Your task to perform on an android device: Search for logitech g903 on bestbuy, select the first entry, and add it to the cart. Image 0: 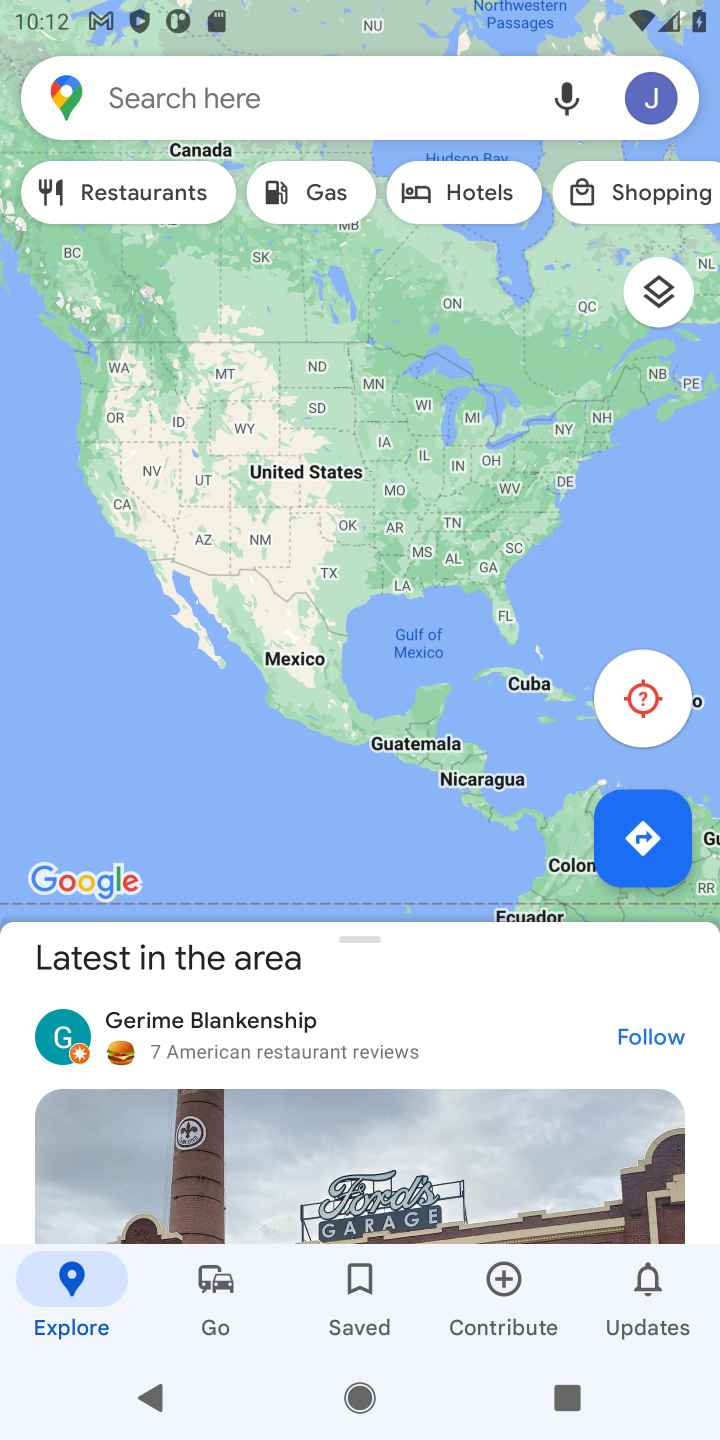
Step 0: press home button
Your task to perform on an android device: Search for logitech g903 on bestbuy, select the first entry, and add it to the cart. Image 1: 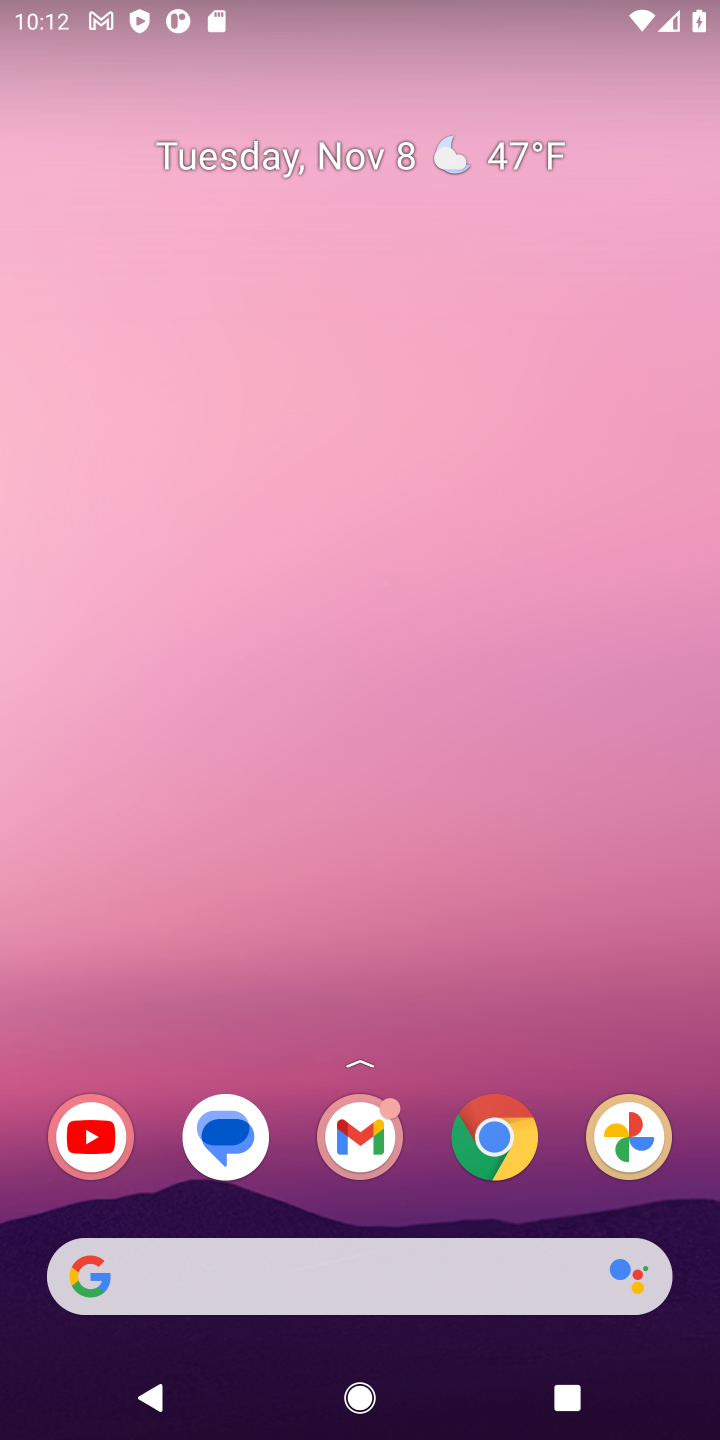
Step 1: click (494, 1140)
Your task to perform on an android device: Search for logitech g903 on bestbuy, select the first entry, and add it to the cart. Image 2: 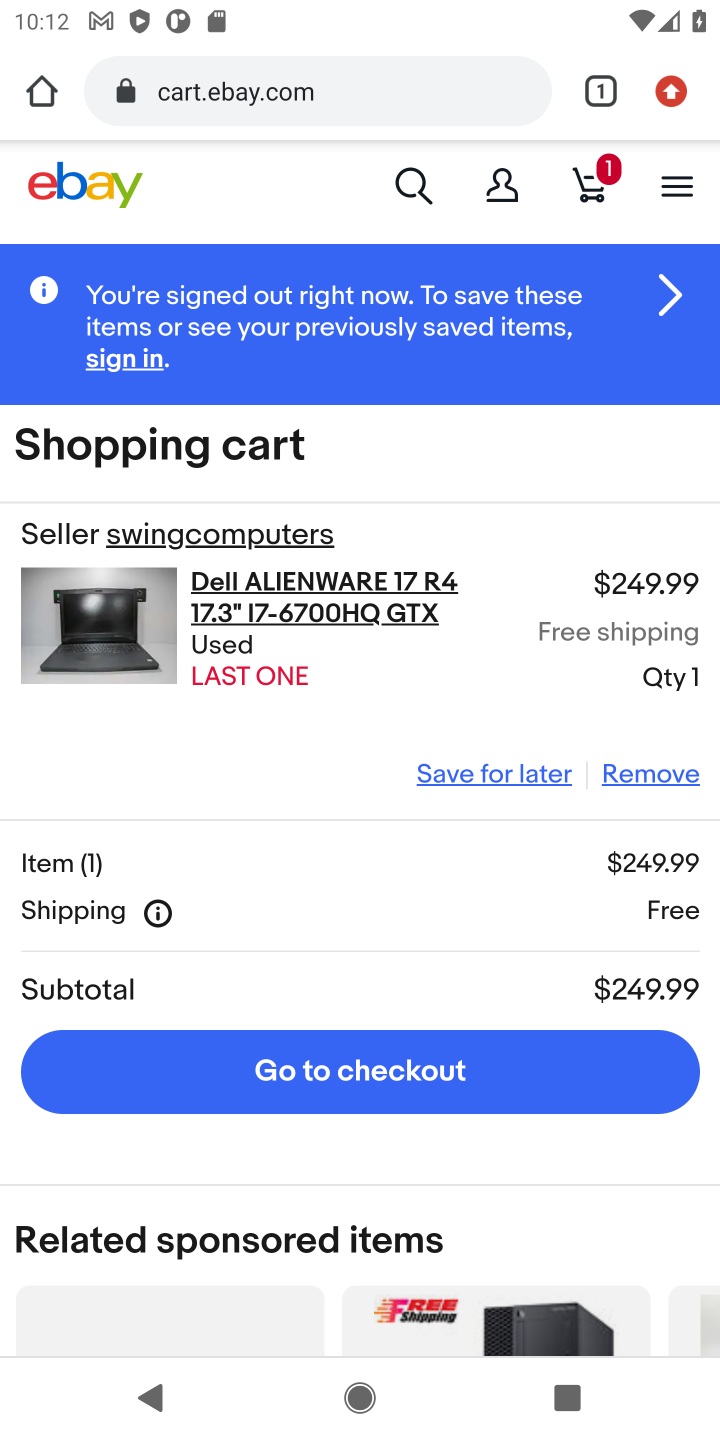
Step 2: click (457, 107)
Your task to perform on an android device: Search for logitech g903 on bestbuy, select the first entry, and add it to the cart. Image 3: 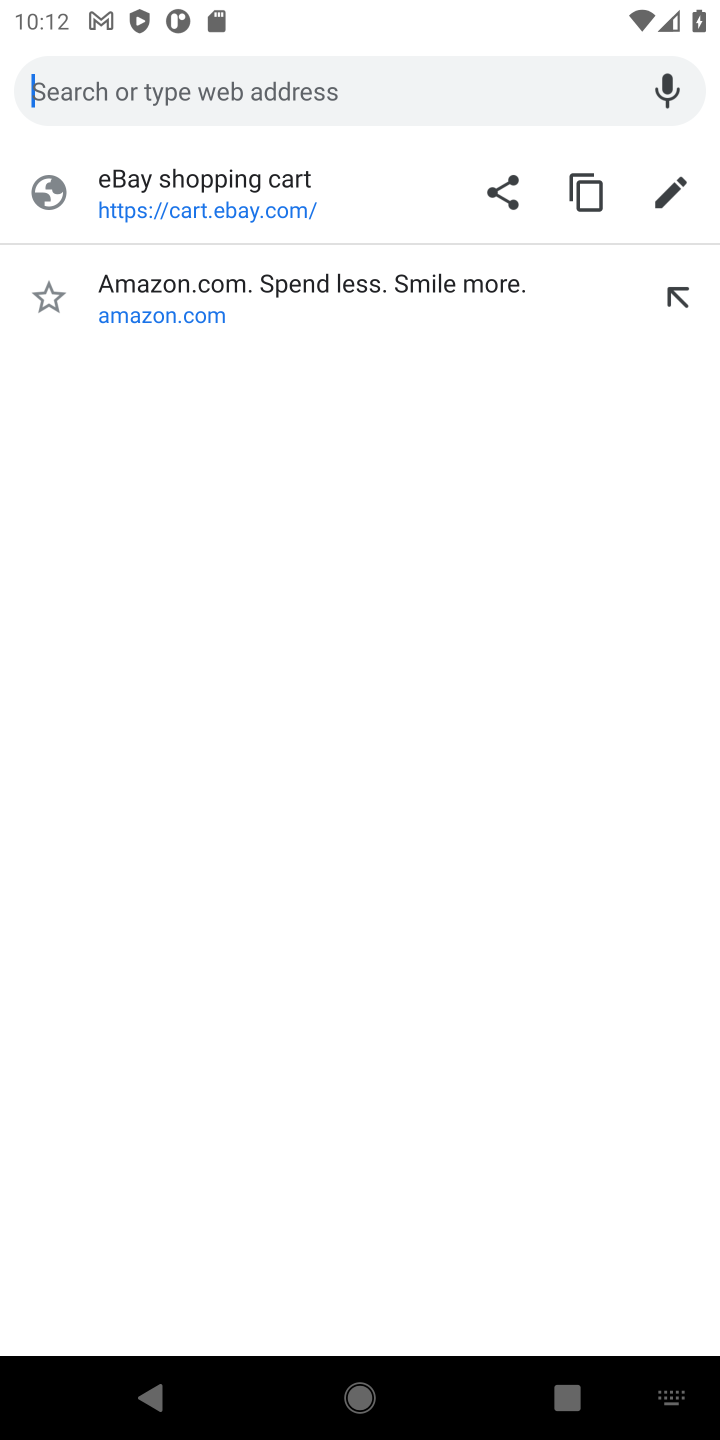
Step 3: type "bestbuy"
Your task to perform on an android device: Search for logitech g903 on bestbuy, select the first entry, and add it to the cart. Image 4: 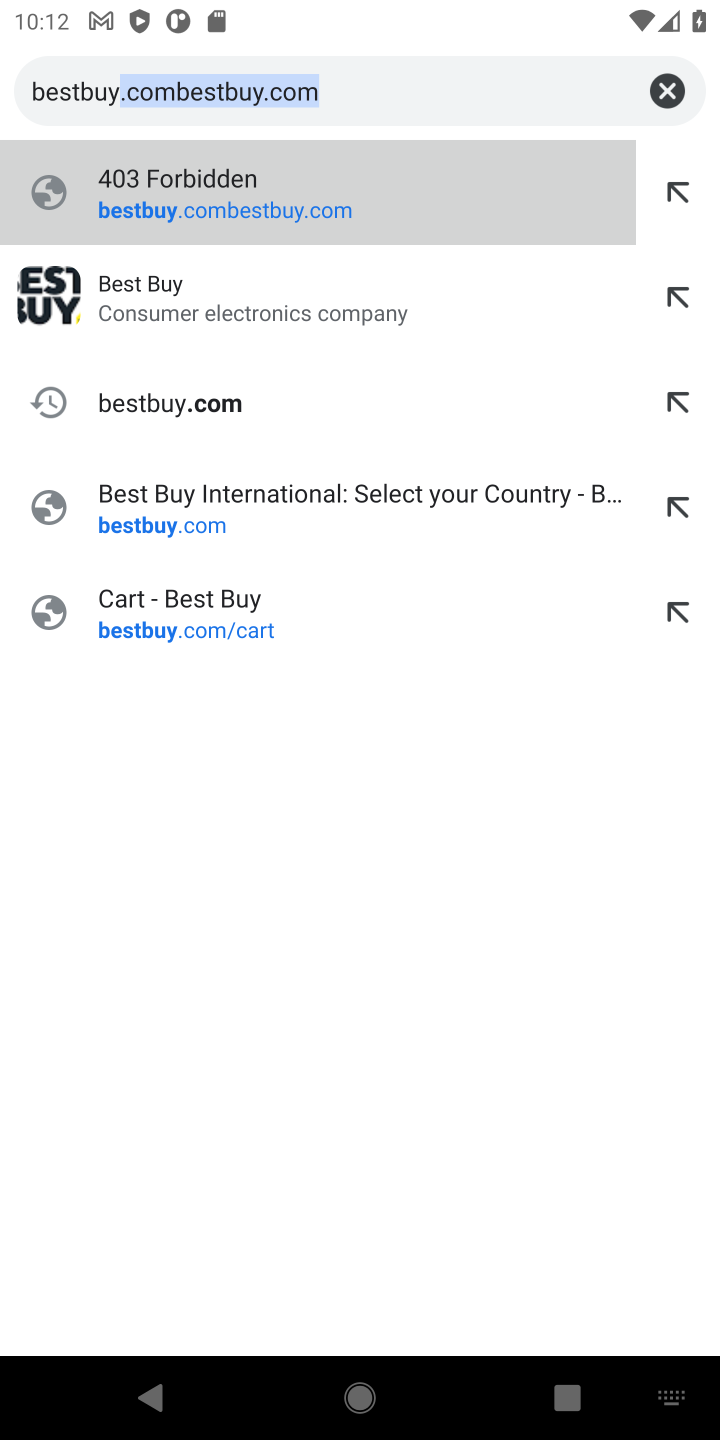
Step 4: click (220, 322)
Your task to perform on an android device: Search for logitech g903 on bestbuy, select the first entry, and add it to the cart. Image 5: 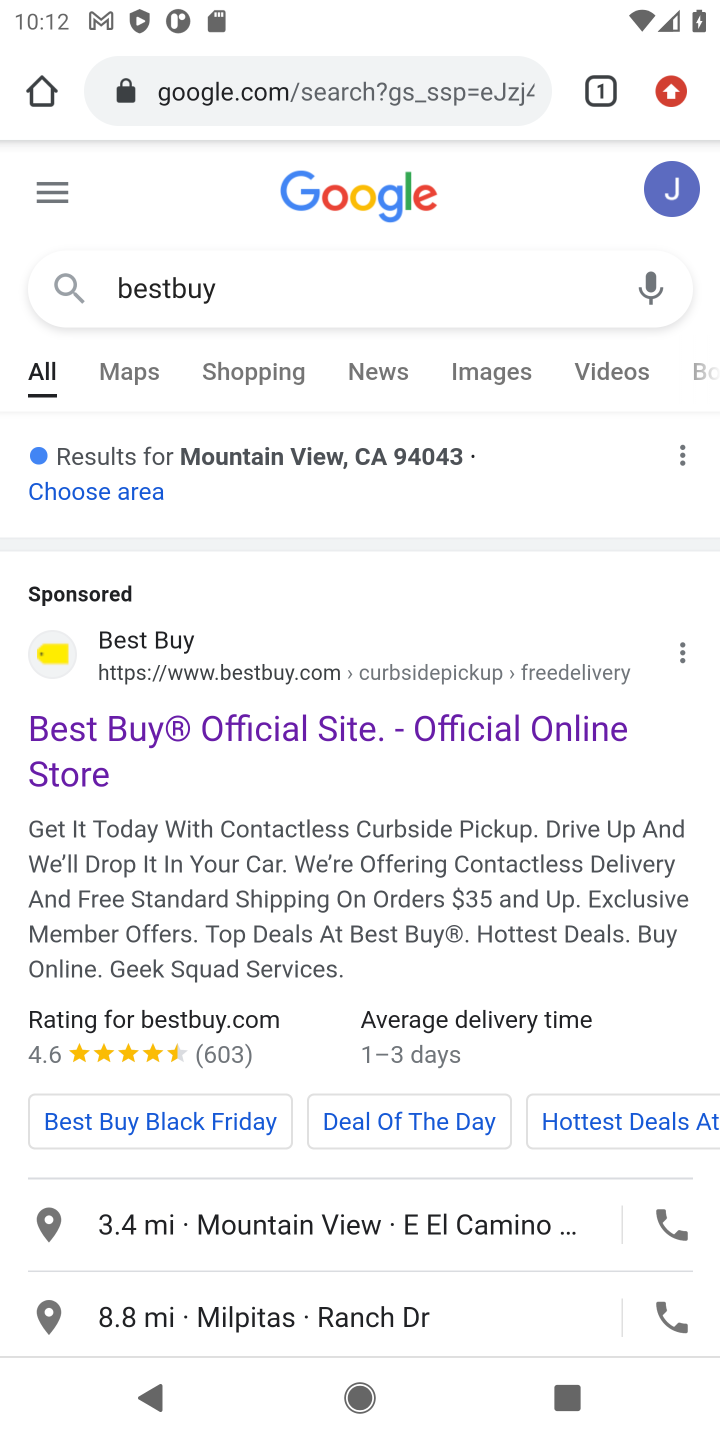
Step 5: drag from (308, 939) to (382, 402)
Your task to perform on an android device: Search for logitech g903 on bestbuy, select the first entry, and add it to the cart. Image 6: 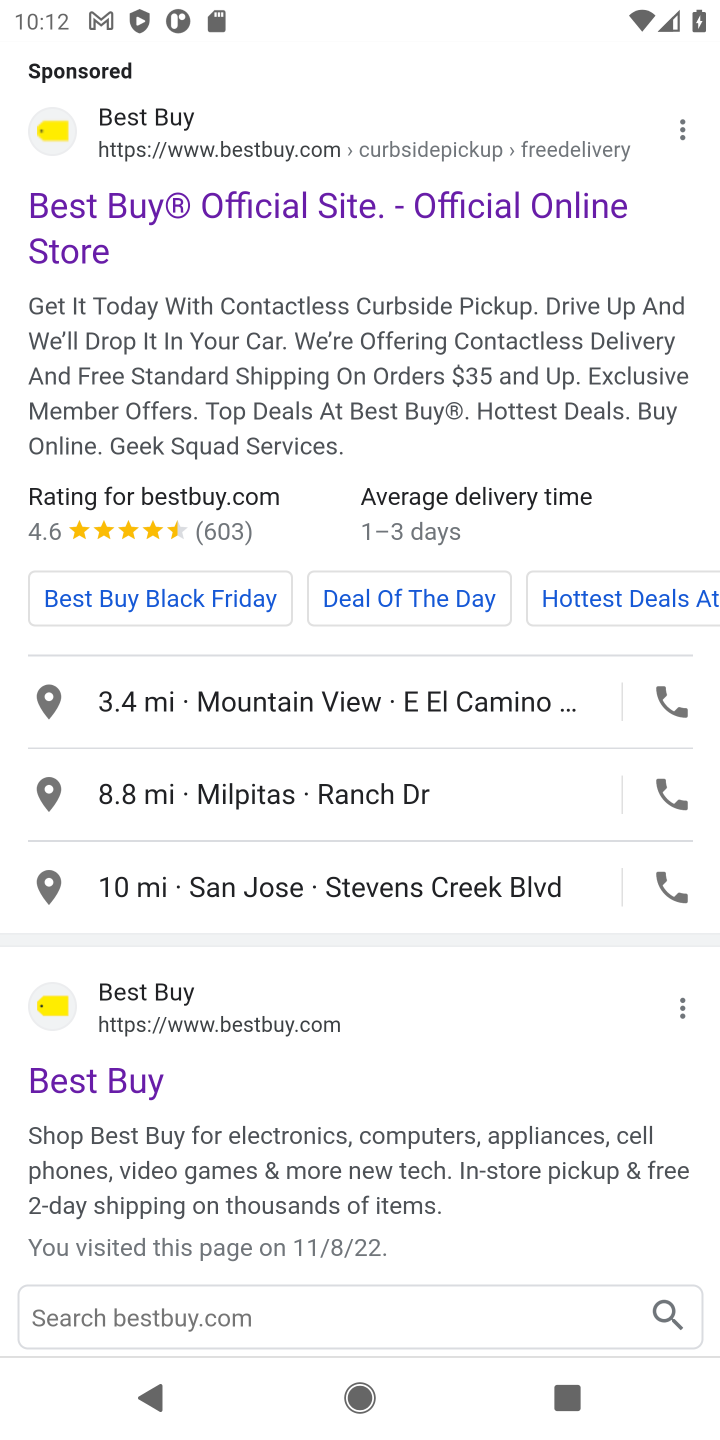
Step 6: click (177, 1094)
Your task to perform on an android device: Search for logitech g903 on bestbuy, select the first entry, and add it to the cart. Image 7: 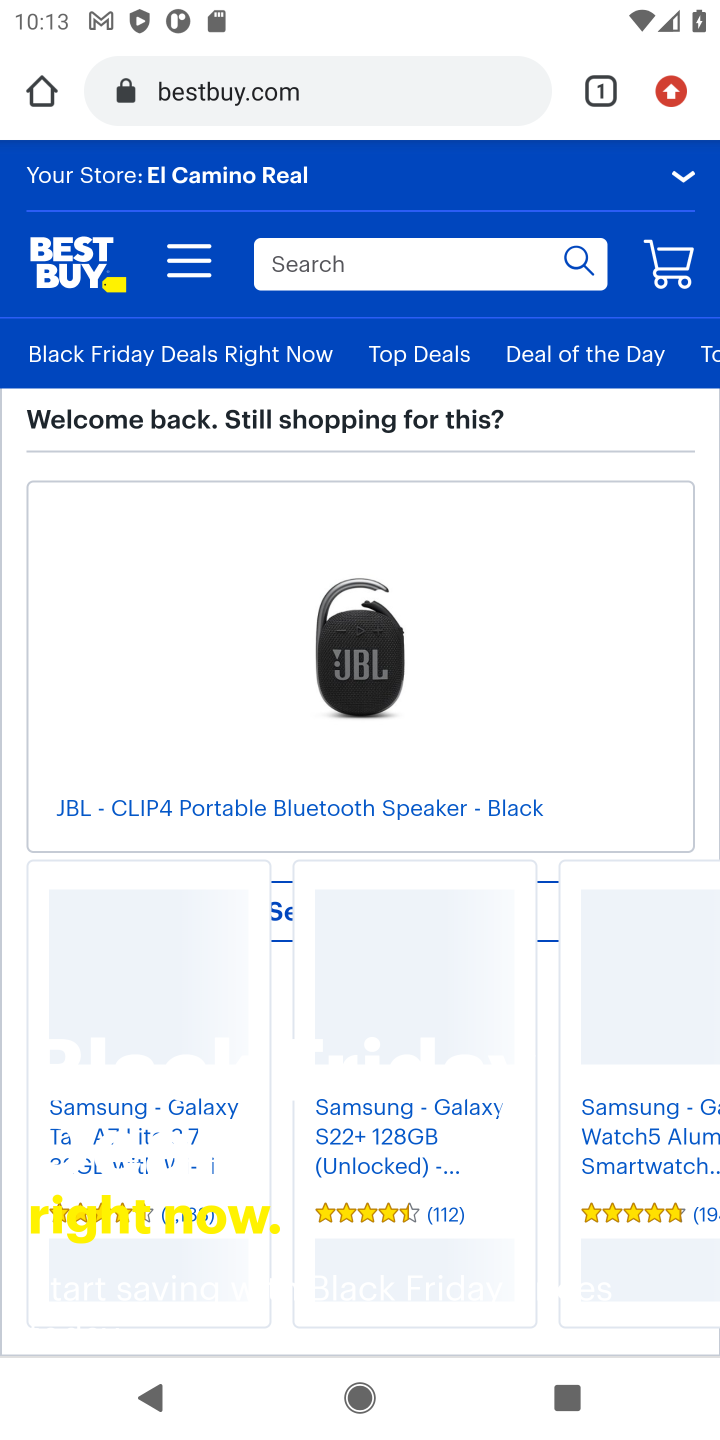
Step 7: click (413, 263)
Your task to perform on an android device: Search for logitech g903 on bestbuy, select the first entry, and add it to the cart. Image 8: 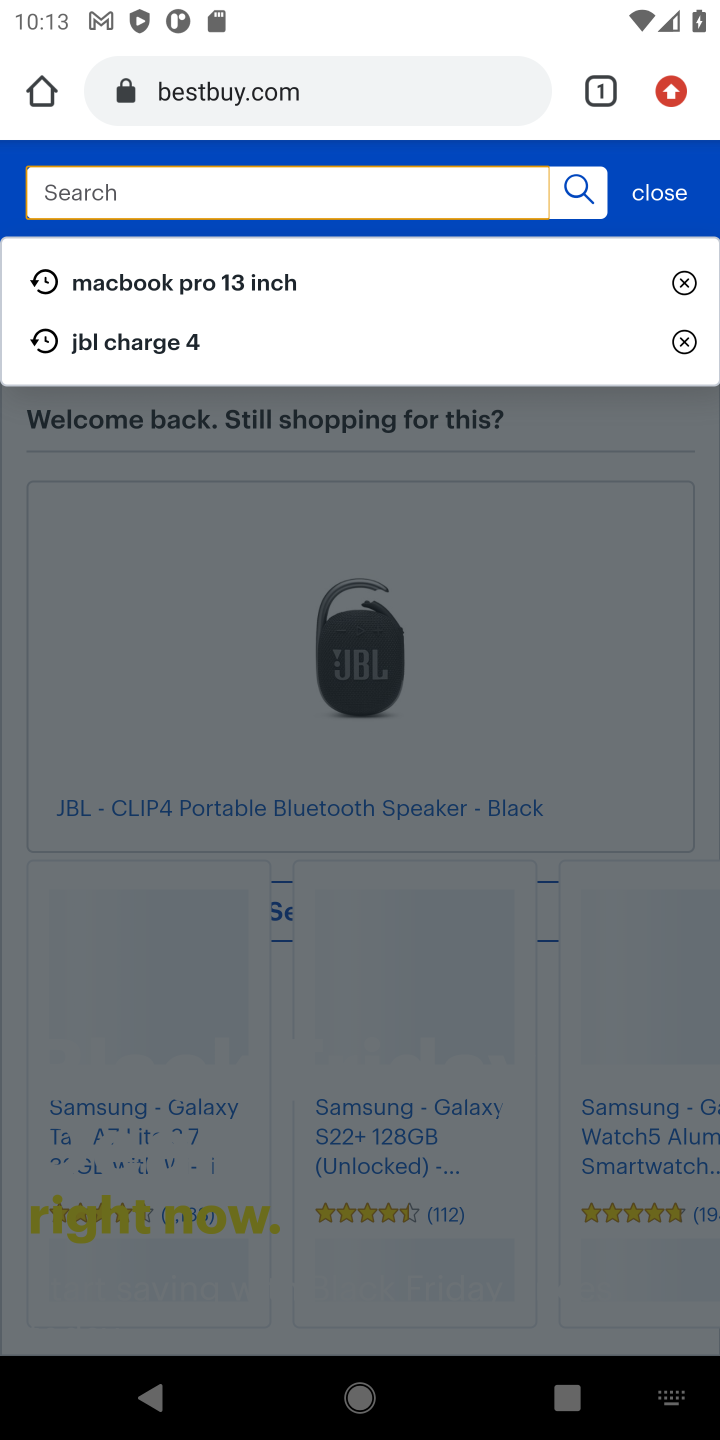
Step 8: type "logitech g903"
Your task to perform on an android device: Search for logitech g903 on bestbuy, select the first entry, and add it to the cart. Image 9: 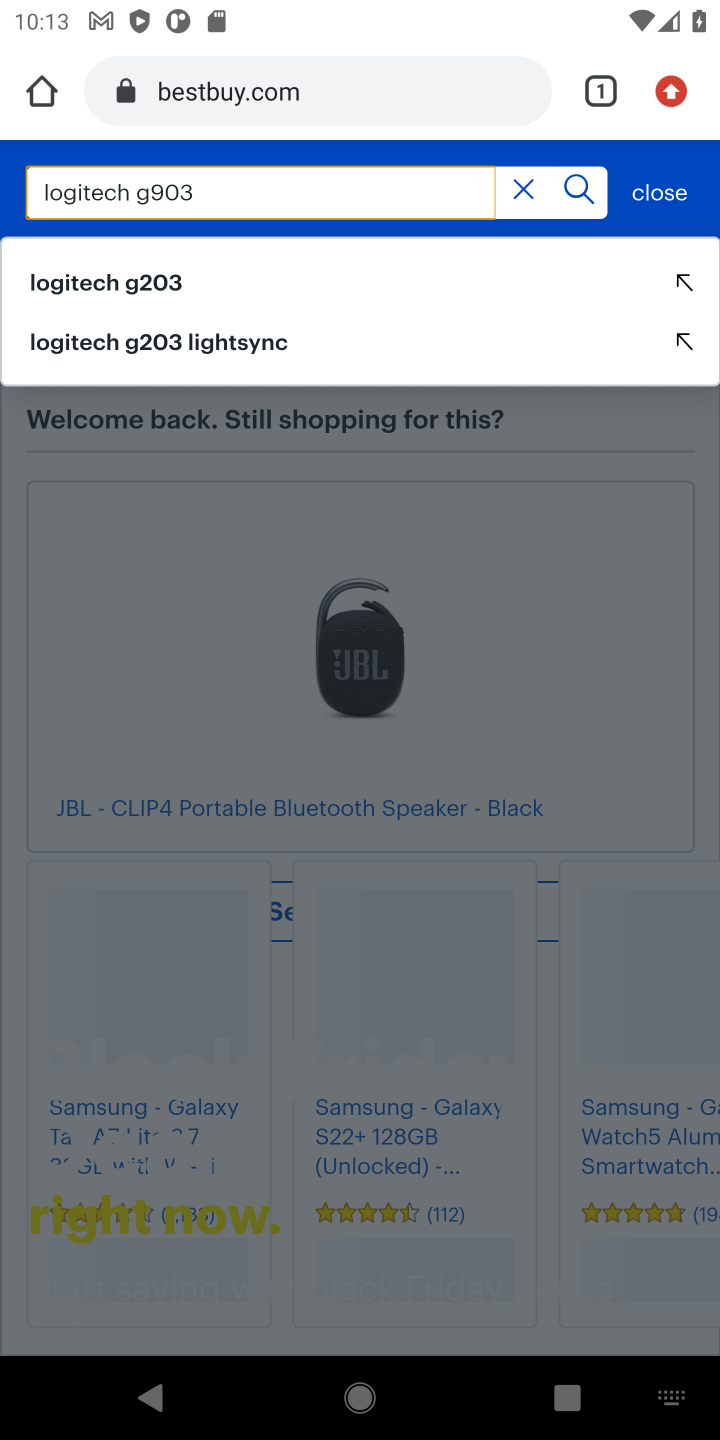
Step 9: click (577, 191)
Your task to perform on an android device: Search for logitech g903 on bestbuy, select the first entry, and add it to the cart. Image 10: 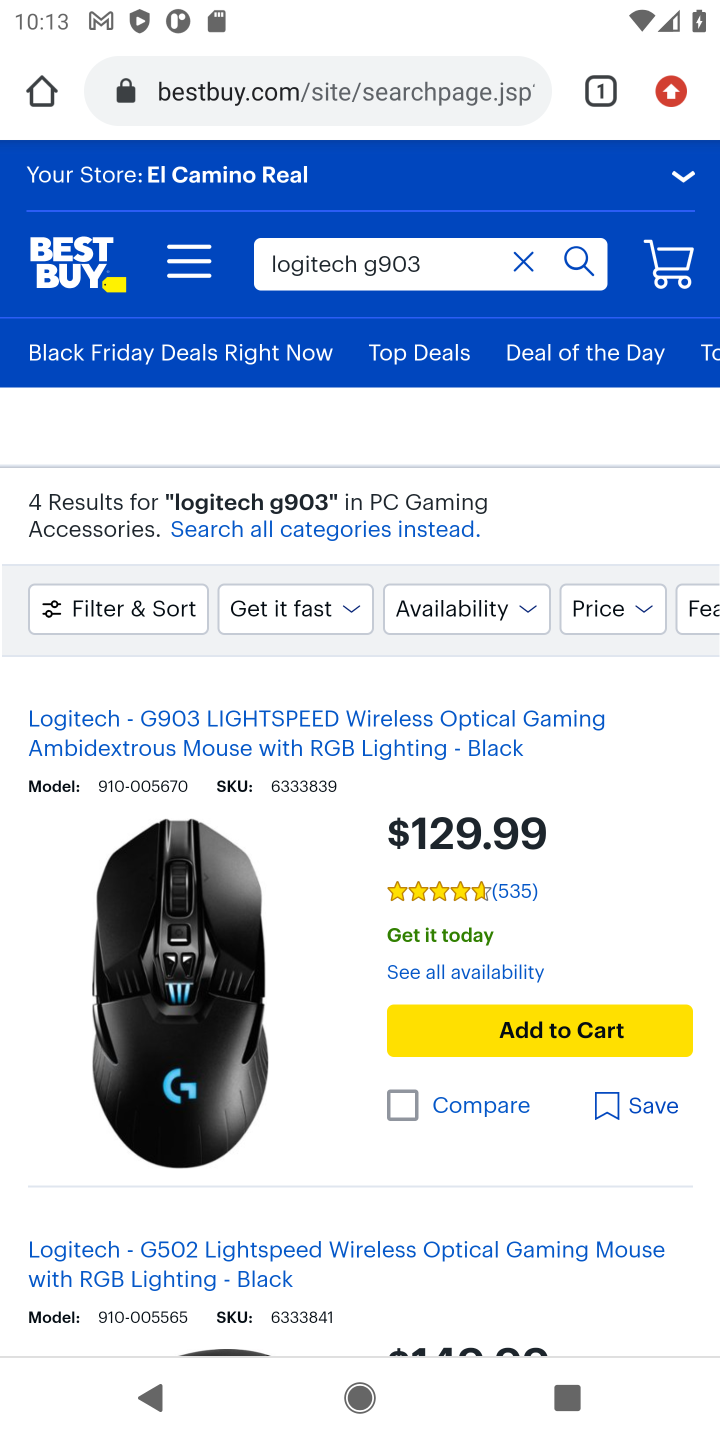
Step 10: click (365, 731)
Your task to perform on an android device: Search for logitech g903 on bestbuy, select the first entry, and add it to the cart. Image 11: 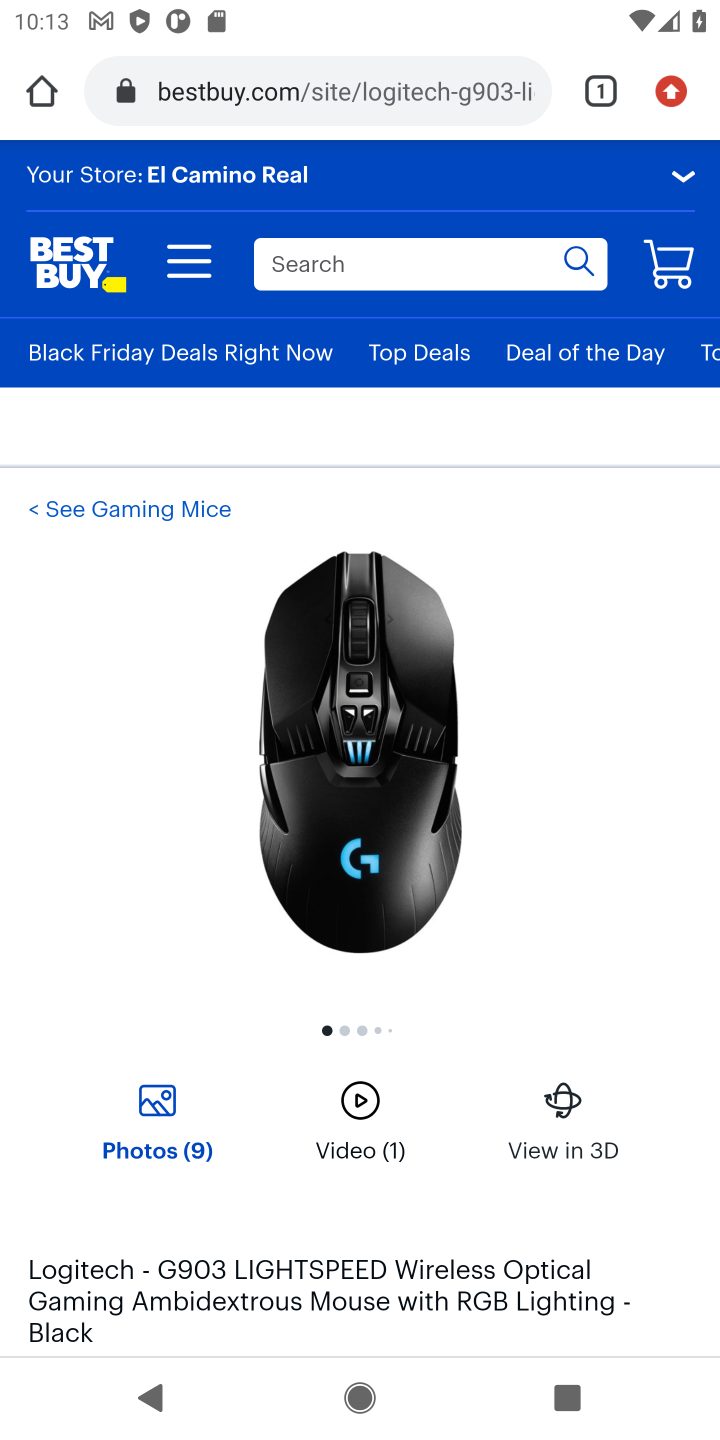
Step 11: drag from (456, 1215) to (477, 493)
Your task to perform on an android device: Search for logitech g903 on bestbuy, select the first entry, and add it to the cart. Image 12: 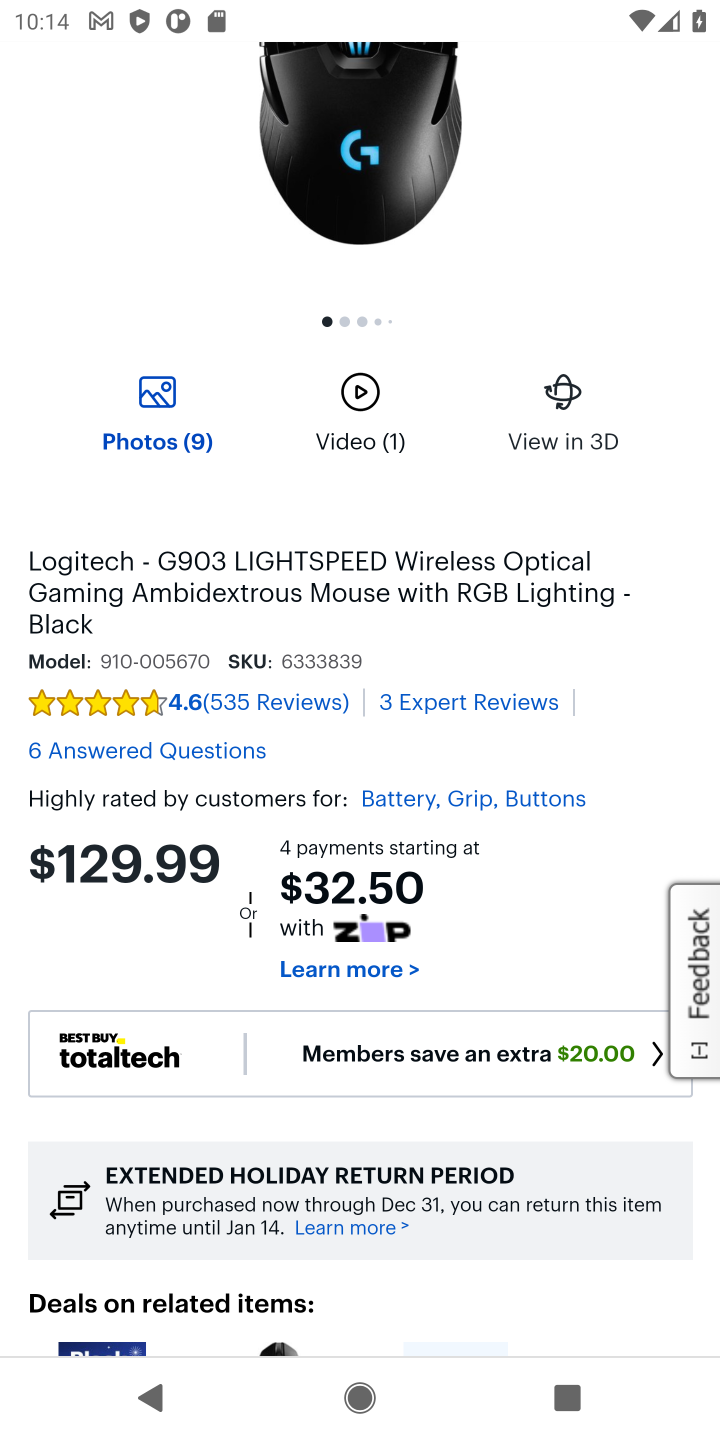
Step 12: drag from (484, 929) to (457, 315)
Your task to perform on an android device: Search for logitech g903 on bestbuy, select the first entry, and add it to the cart. Image 13: 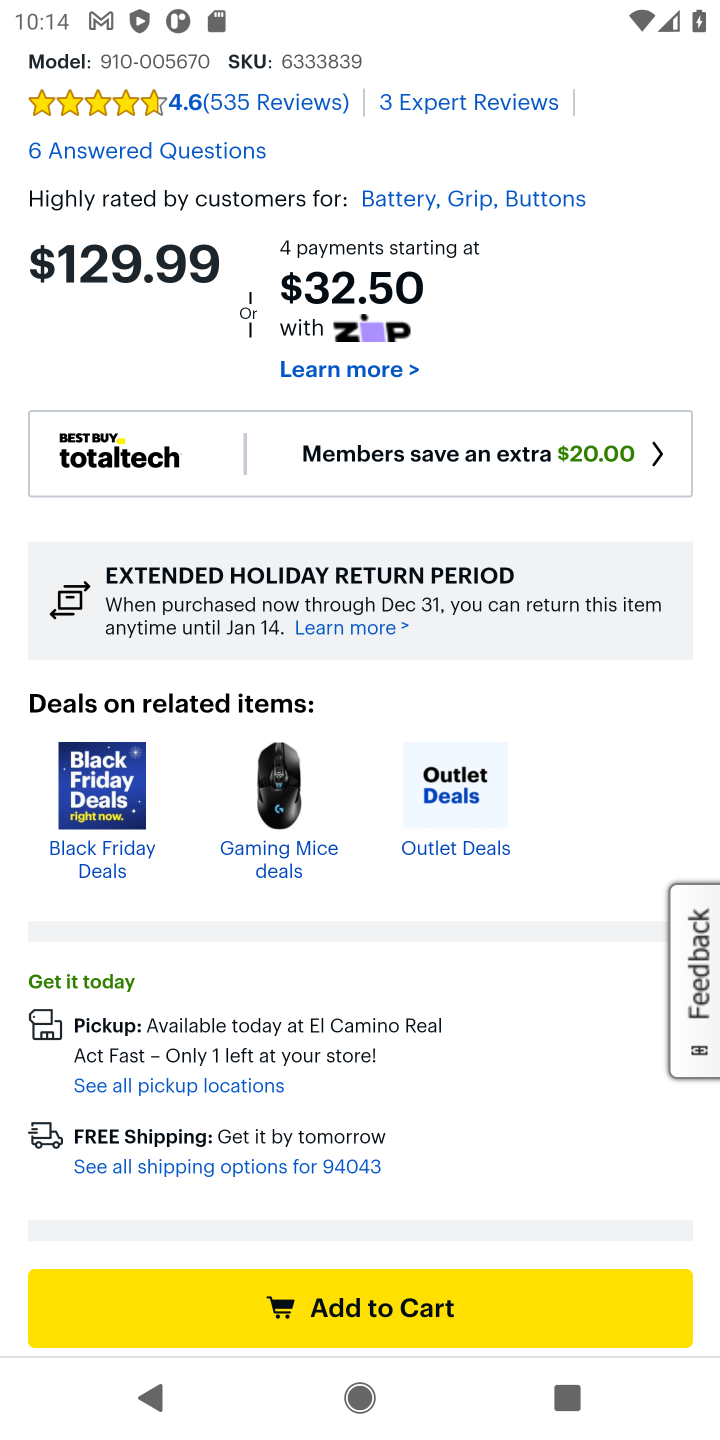
Step 13: click (379, 1294)
Your task to perform on an android device: Search for logitech g903 on bestbuy, select the first entry, and add it to the cart. Image 14: 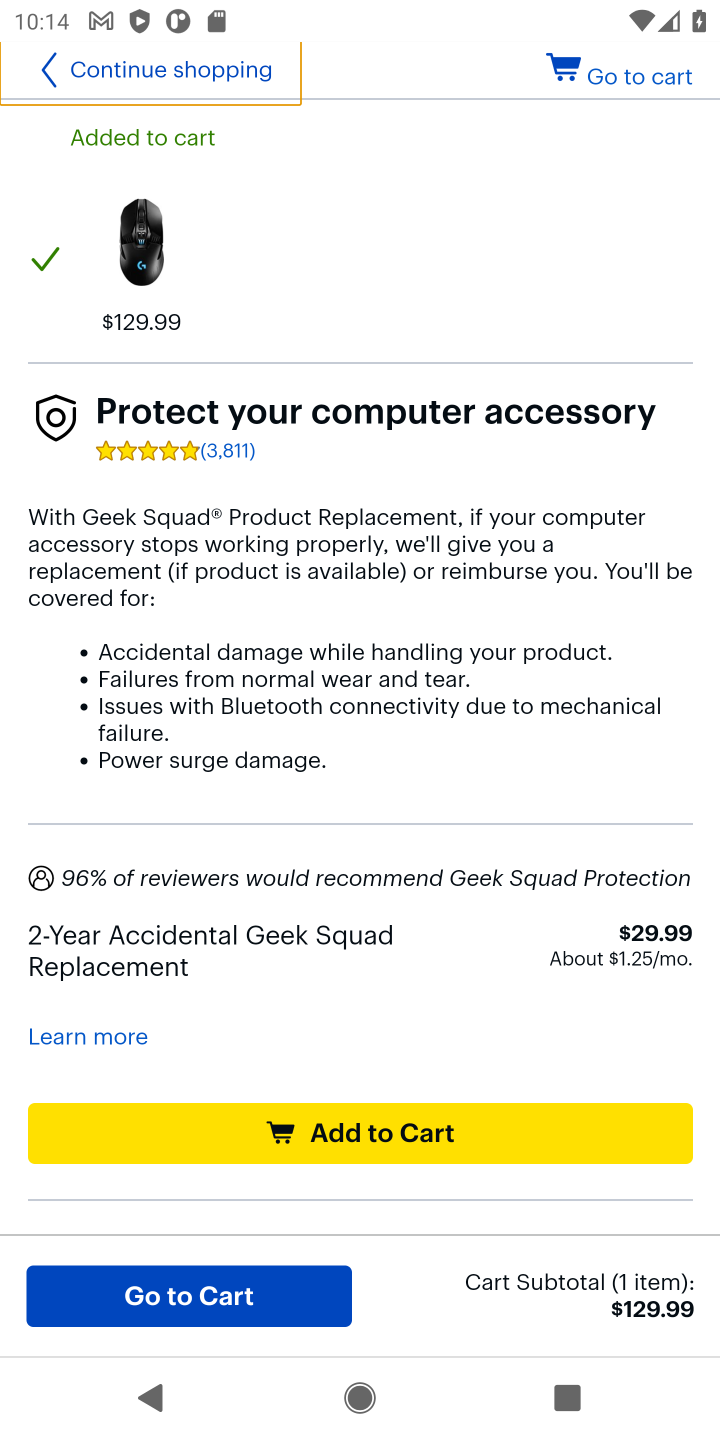
Step 14: click (191, 1302)
Your task to perform on an android device: Search for logitech g903 on bestbuy, select the first entry, and add it to the cart. Image 15: 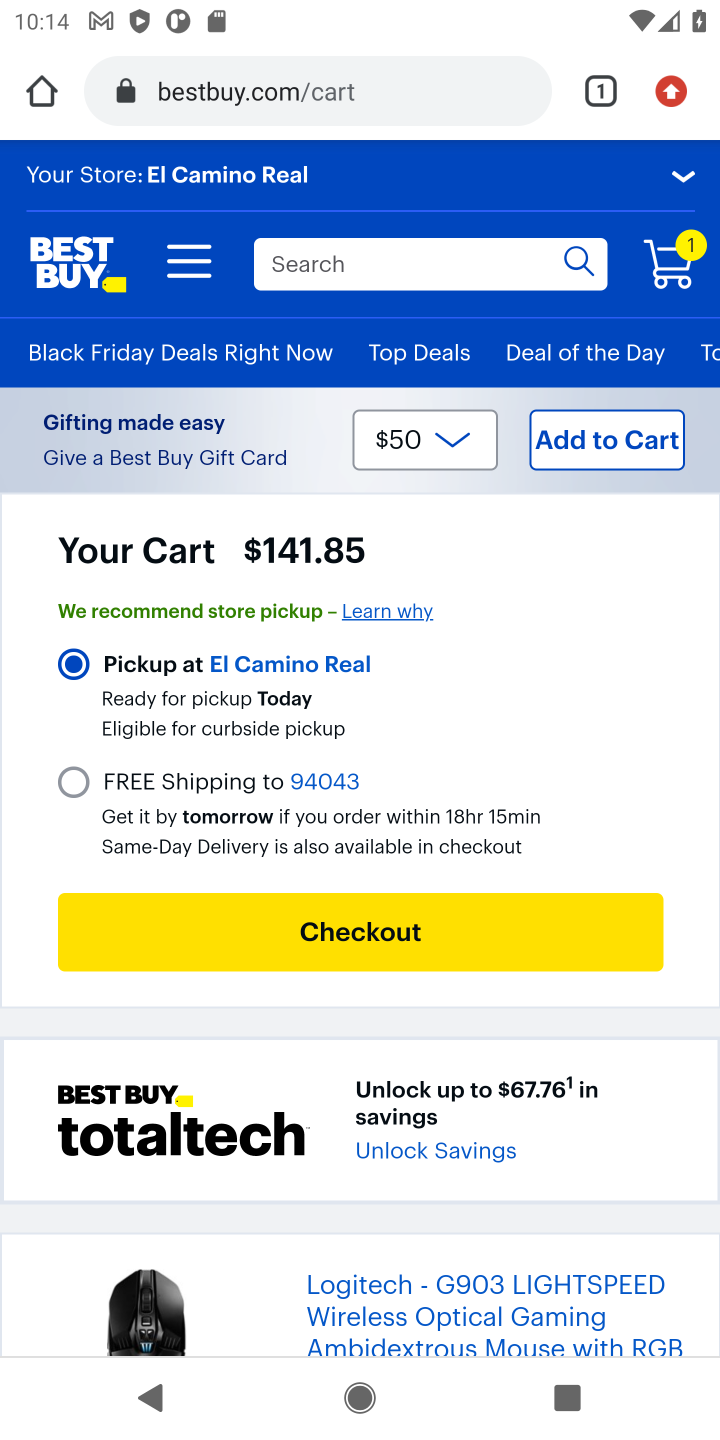
Step 15: task complete